Your task to perform on an android device: open wifi settings Image 0: 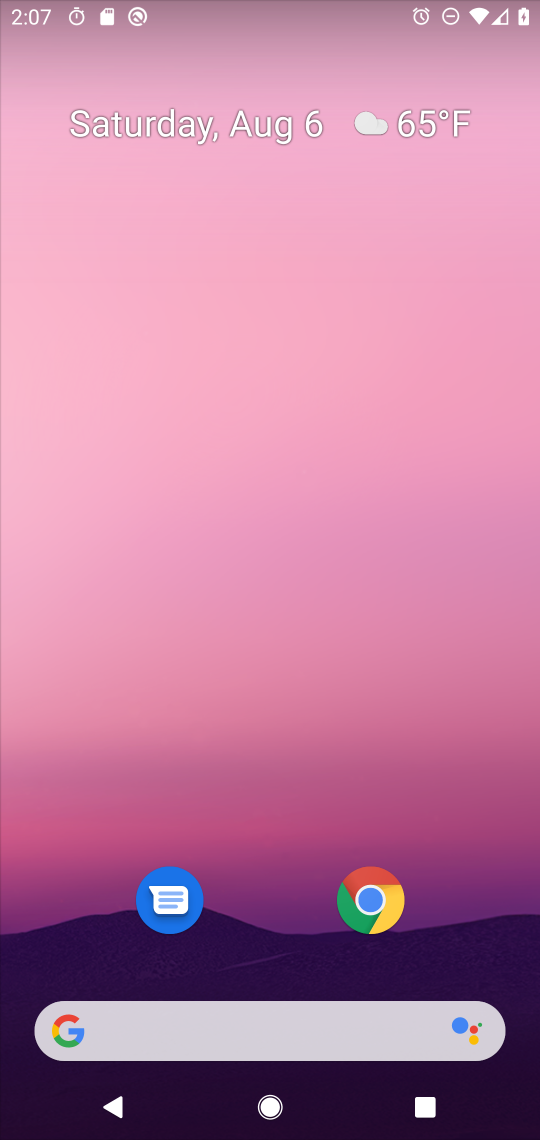
Step 0: drag from (305, 236) to (307, 176)
Your task to perform on an android device: open wifi settings Image 1: 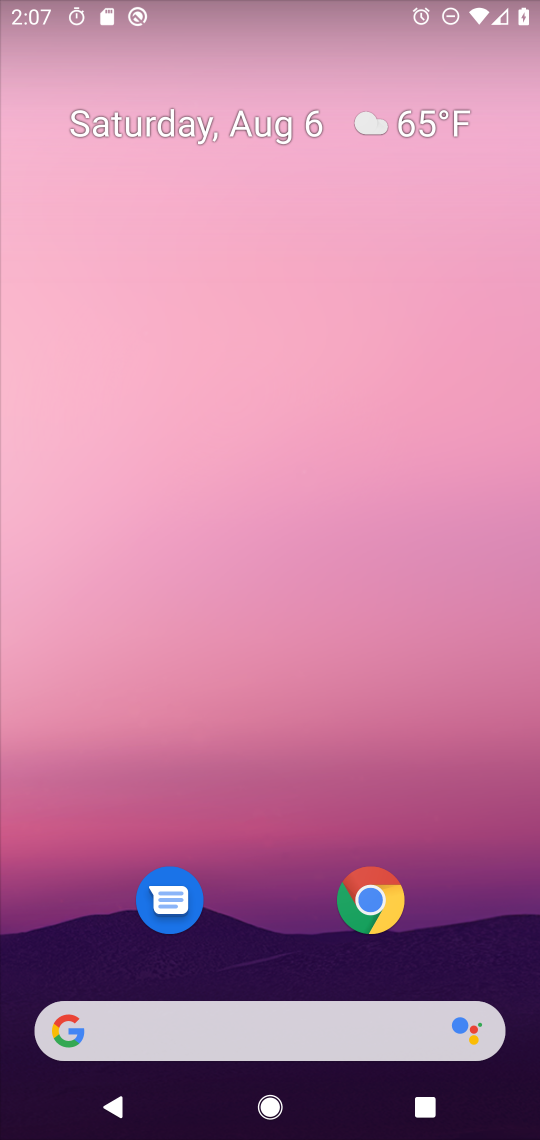
Step 1: drag from (271, 963) to (266, 140)
Your task to perform on an android device: open wifi settings Image 2: 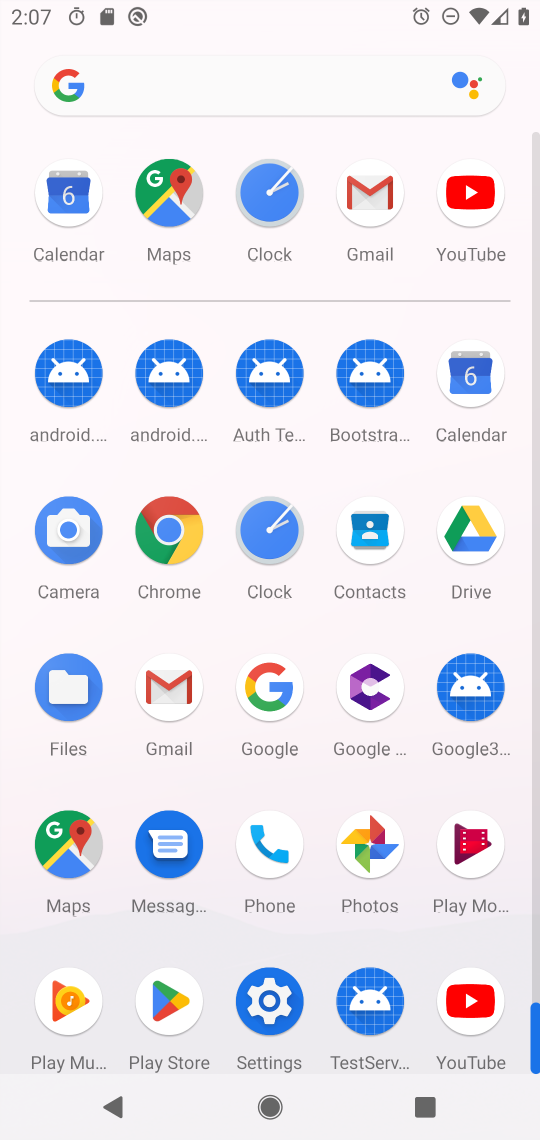
Step 2: click (281, 1002)
Your task to perform on an android device: open wifi settings Image 3: 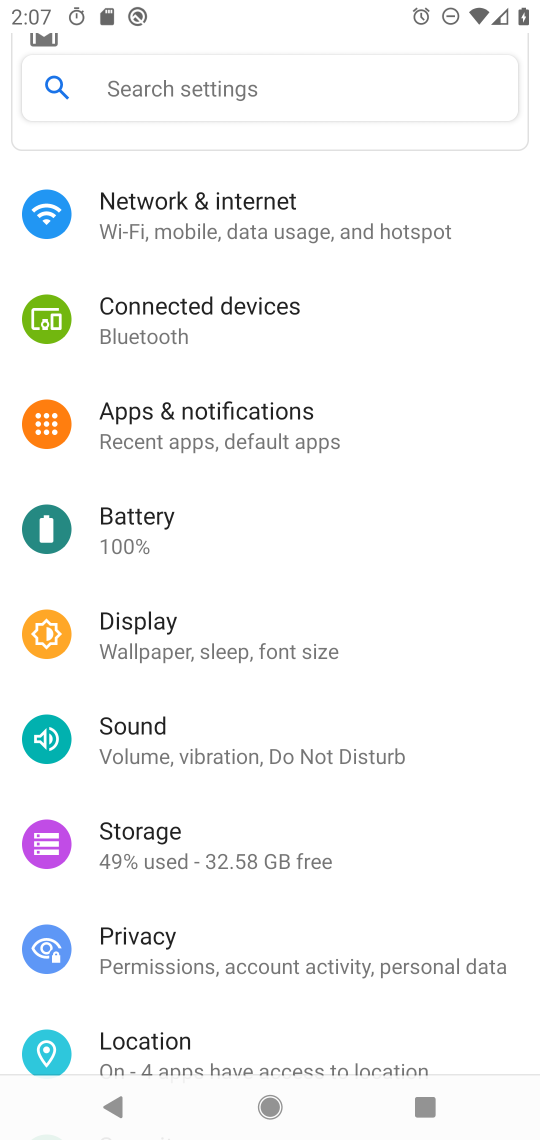
Step 3: click (164, 222)
Your task to perform on an android device: open wifi settings Image 4: 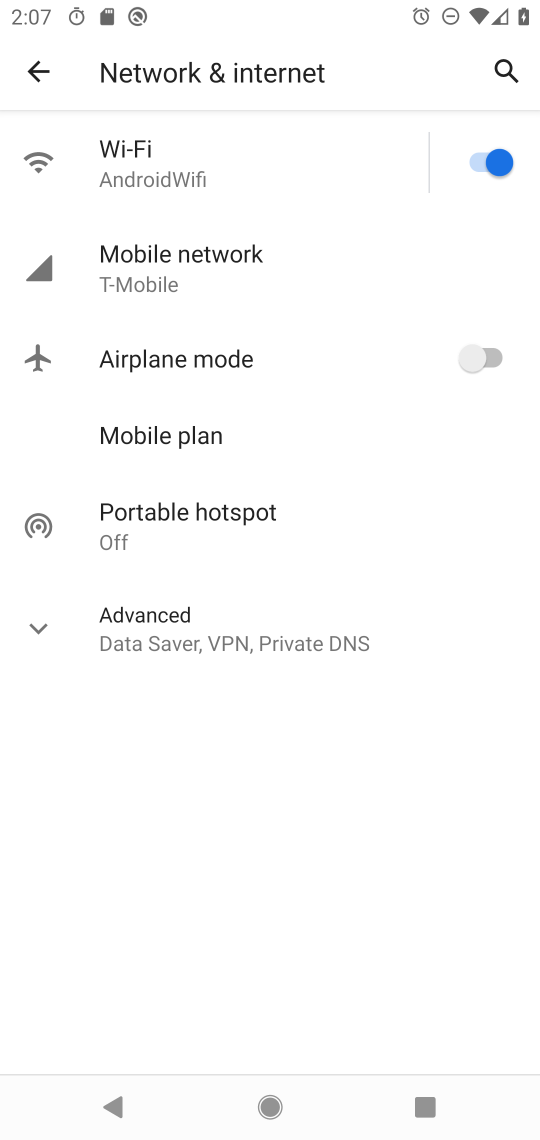
Step 4: click (148, 165)
Your task to perform on an android device: open wifi settings Image 5: 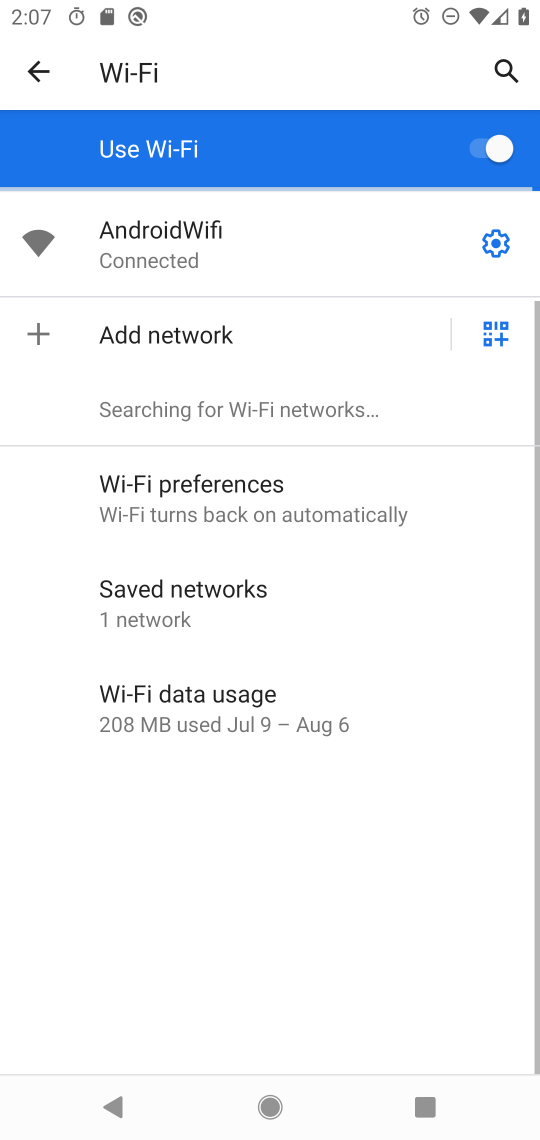
Step 5: task complete